Your task to perform on an android device: add a label to a message in the gmail app Image 0: 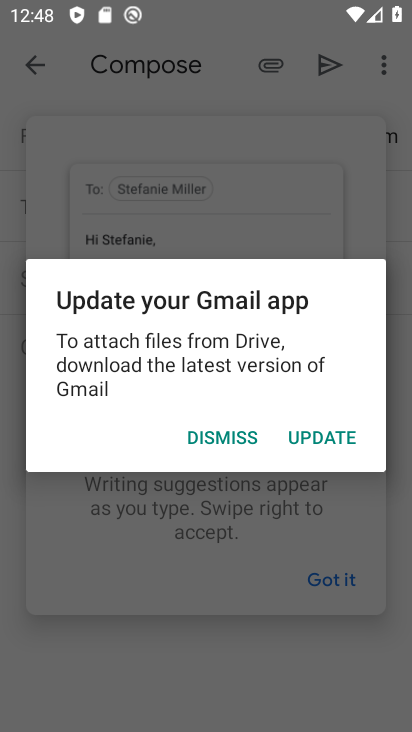
Step 0: press home button
Your task to perform on an android device: add a label to a message in the gmail app Image 1: 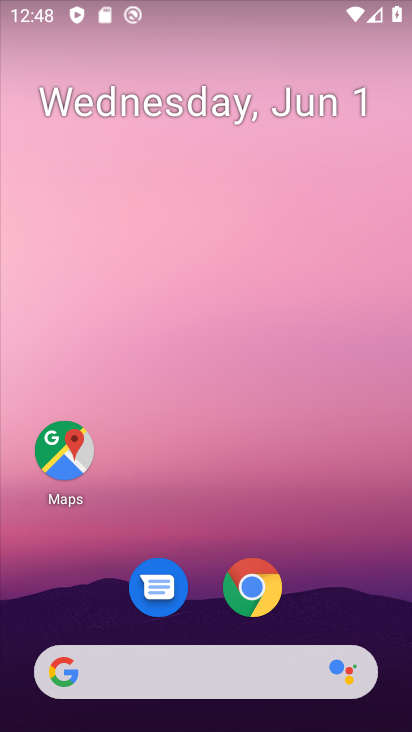
Step 1: drag from (398, 708) to (133, 129)
Your task to perform on an android device: add a label to a message in the gmail app Image 2: 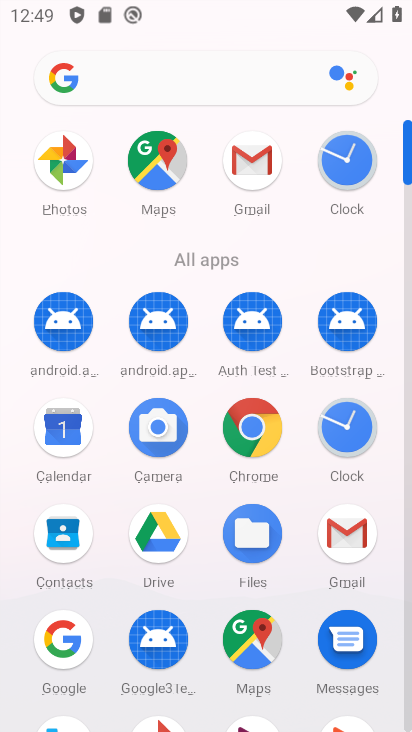
Step 2: click (257, 167)
Your task to perform on an android device: add a label to a message in the gmail app Image 3: 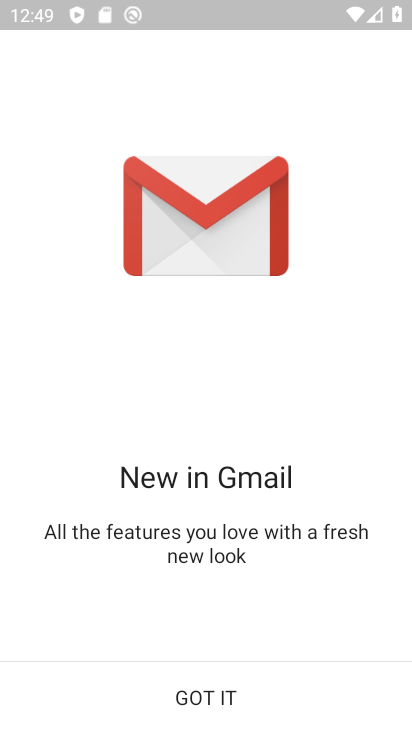
Step 3: click (246, 709)
Your task to perform on an android device: add a label to a message in the gmail app Image 4: 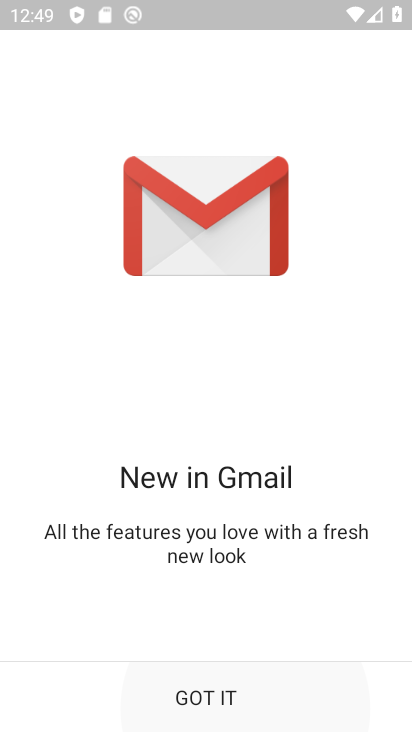
Step 4: click (246, 709)
Your task to perform on an android device: add a label to a message in the gmail app Image 5: 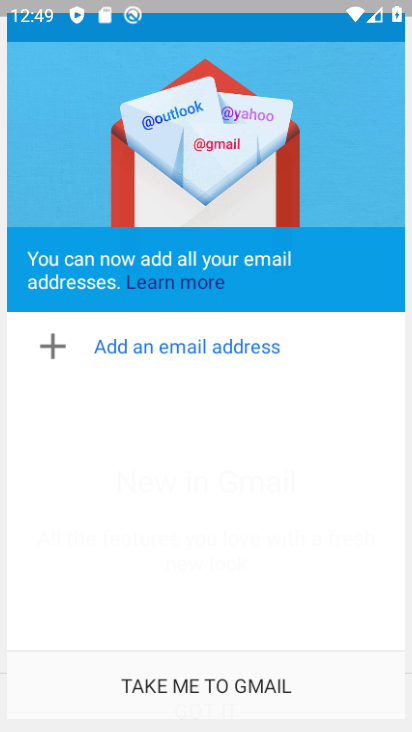
Step 5: click (246, 709)
Your task to perform on an android device: add a label to a message in the gmail app Image 6: 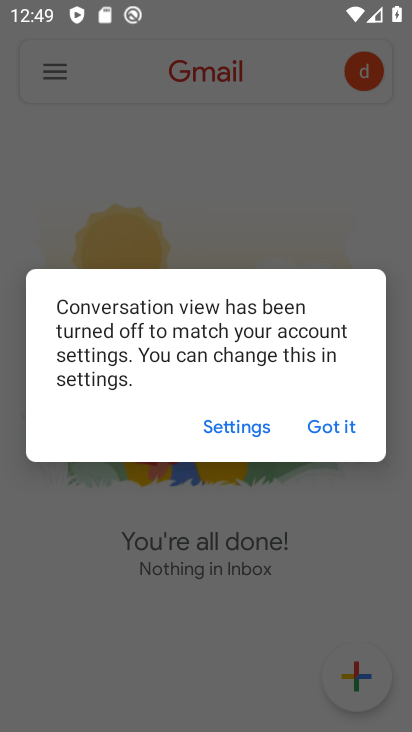
Step 6: click (346, 412)
Your task to perform on an android device: add a label to a message in the gmail app Image 7: 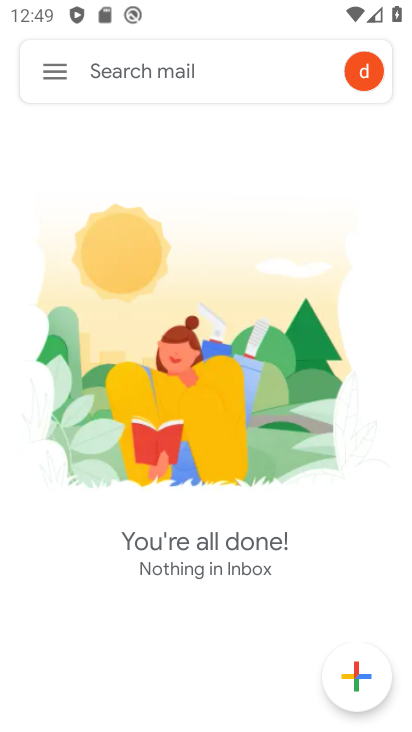
Step 7: click (46, 78)
Your task to perform on an android device: add a label to a message in the gmail app Image 8: 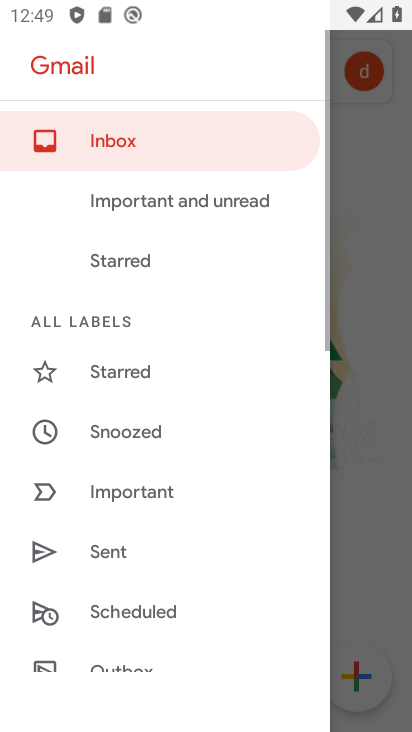
Step 8: task complete